Your task to perform on an android device: What is the recent news? Image 0: 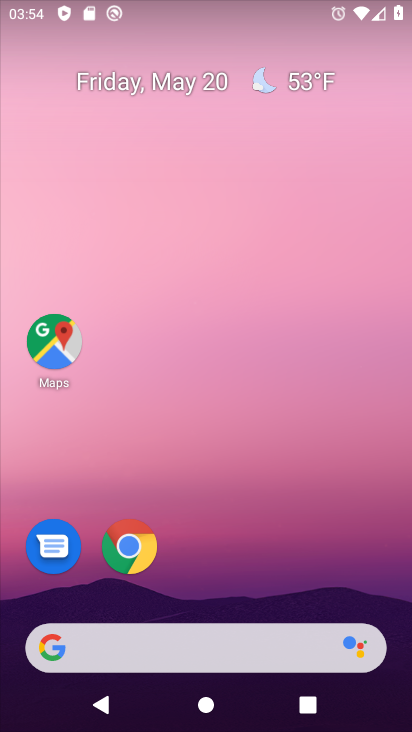
Step 0: click (132, 538)
Your task to perform on an android device: What is the recent news? Image 1: 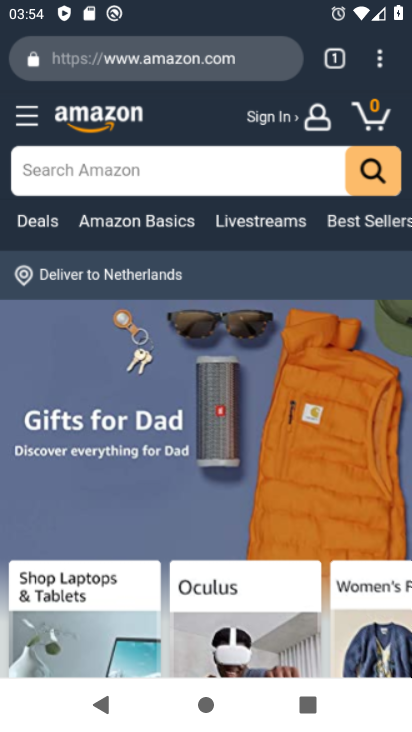
Step 1: click (219, 55)
Your task to perform on an android device: What is the recent news? Image 2: 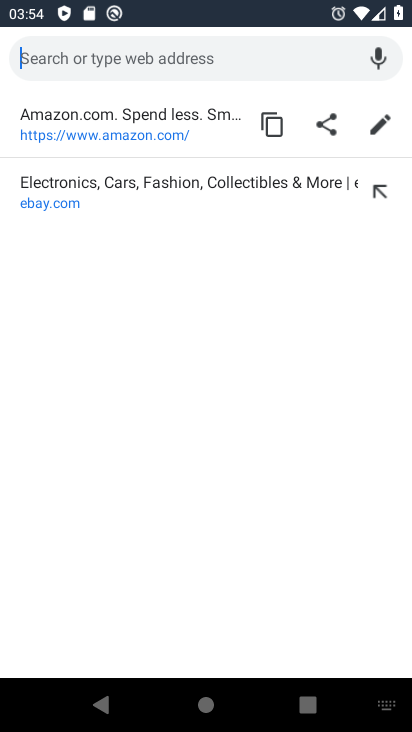
Step 2: type "news"
Your task to perform on an android device: What is the recent news? Image 3: 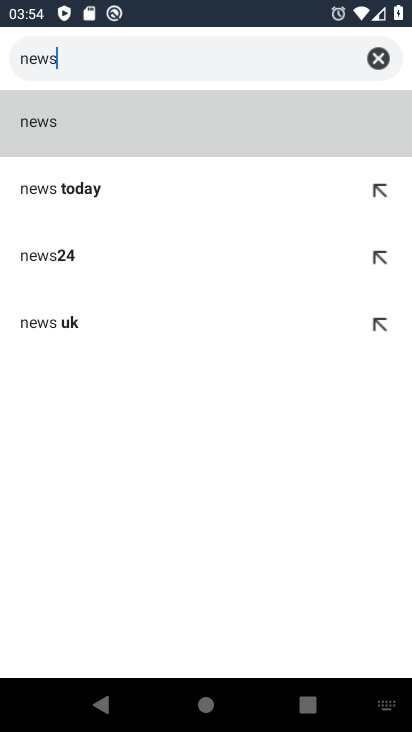
Step 3: click (40, 118)
Your task to perform on an android device: What is the recent news? Image 4: 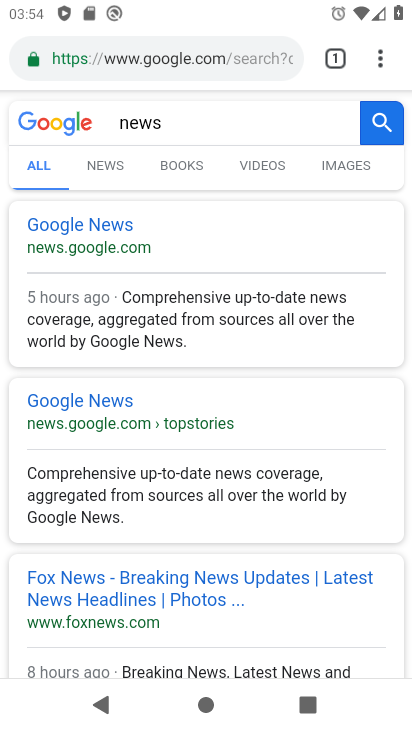
Step 4: click (102, 160)
Your task to perform on an android device: What is the recent news? Image 5: 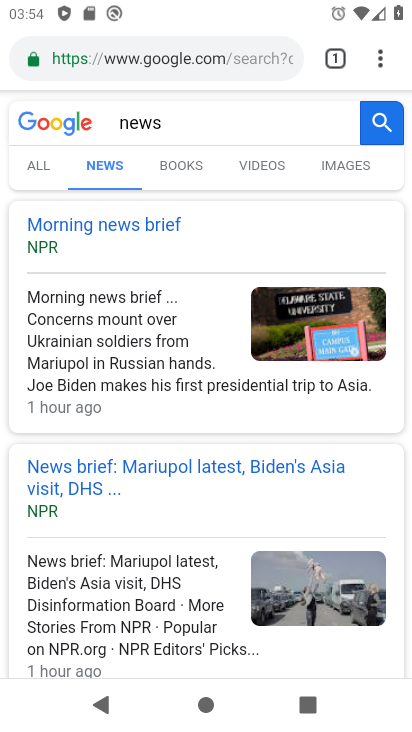
Step 5: task complete